Your task to perform on an android device: Go to internet settings Image 0: 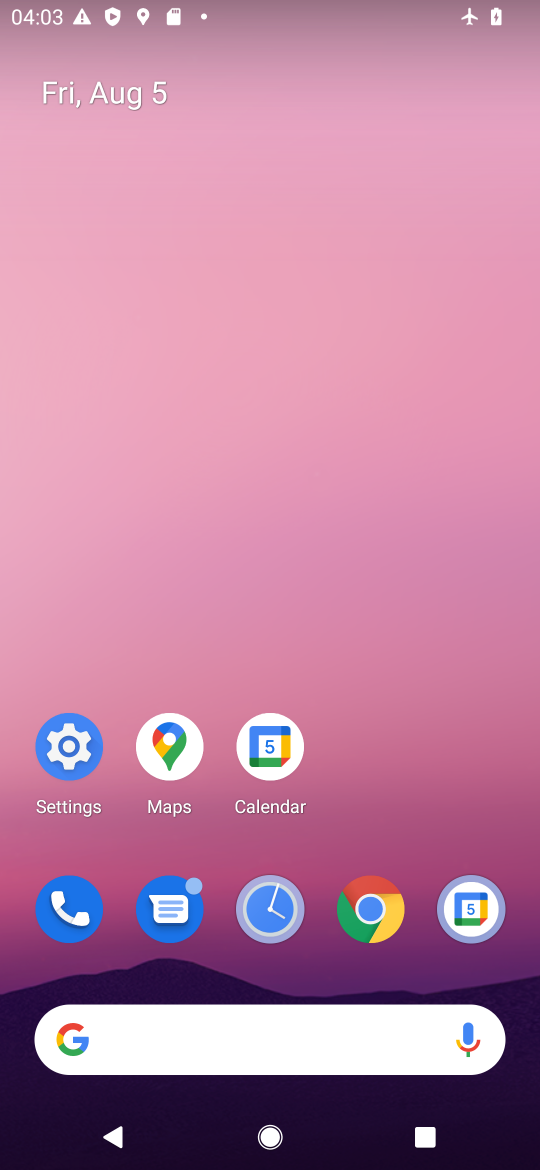
Step 0: click (64, 739)
Your task to perform on an android device: Go to internet settings Image 1: 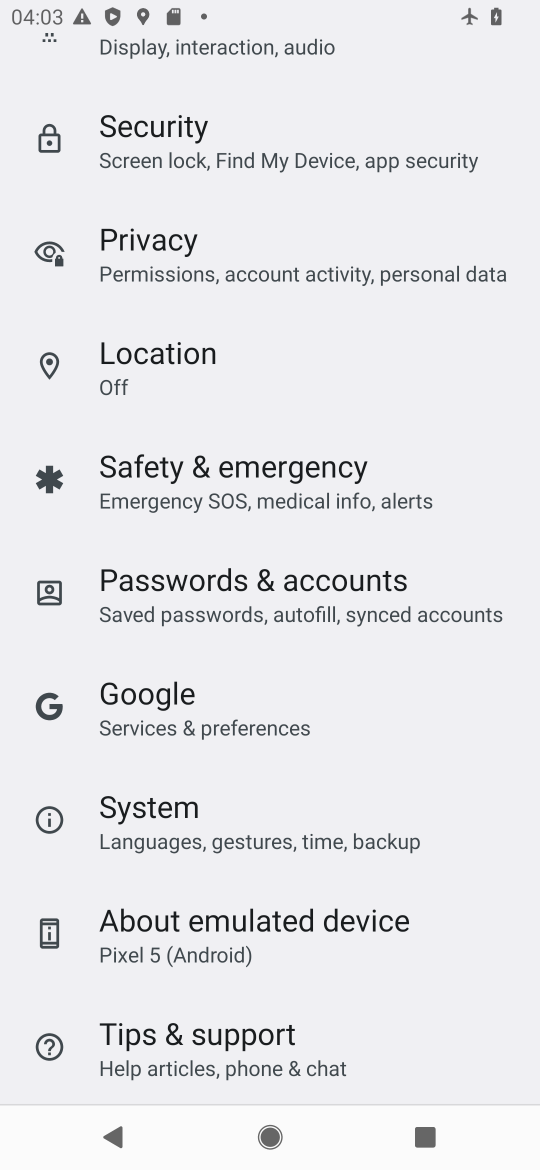
Step 1: drag from (298, 196) to (236, 589)
Your task to perform on an android device: Go to internet settings Image 2: 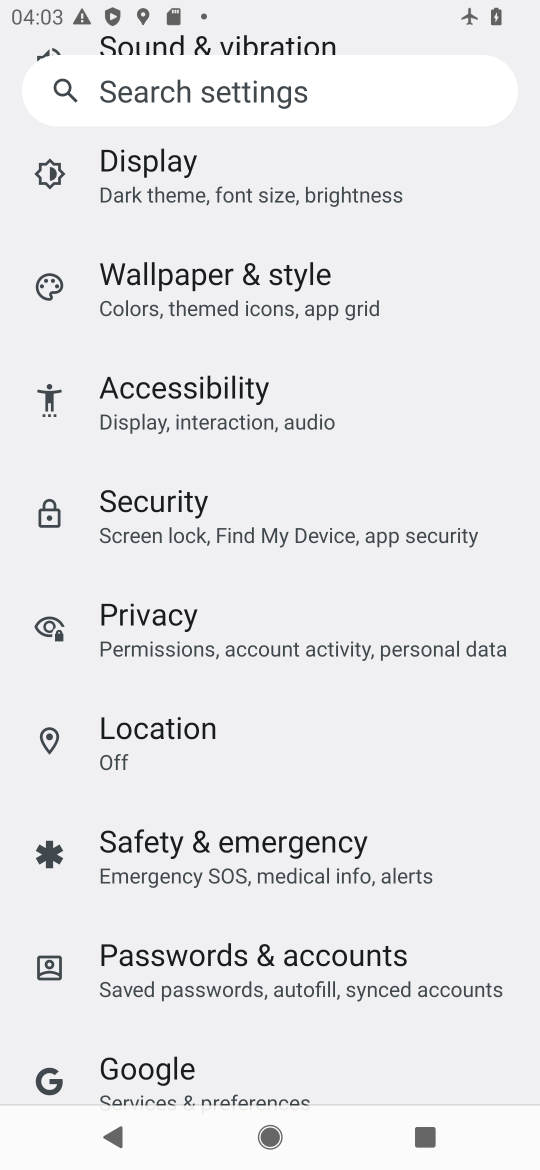
Step 2: drag from (383, 254) to (317, 714)
Your task to perform on an android device: Go to internet settings Image 3: 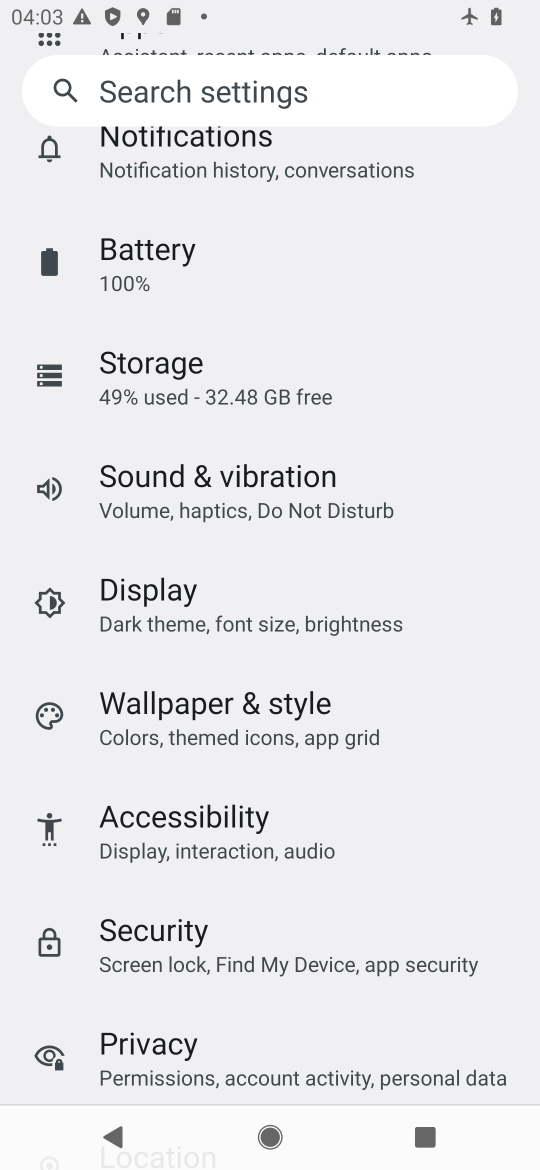
Step 3: drag from (307, 259) to (254, 811)
Your task to perform on an android device: Go to internet settings Image 4: 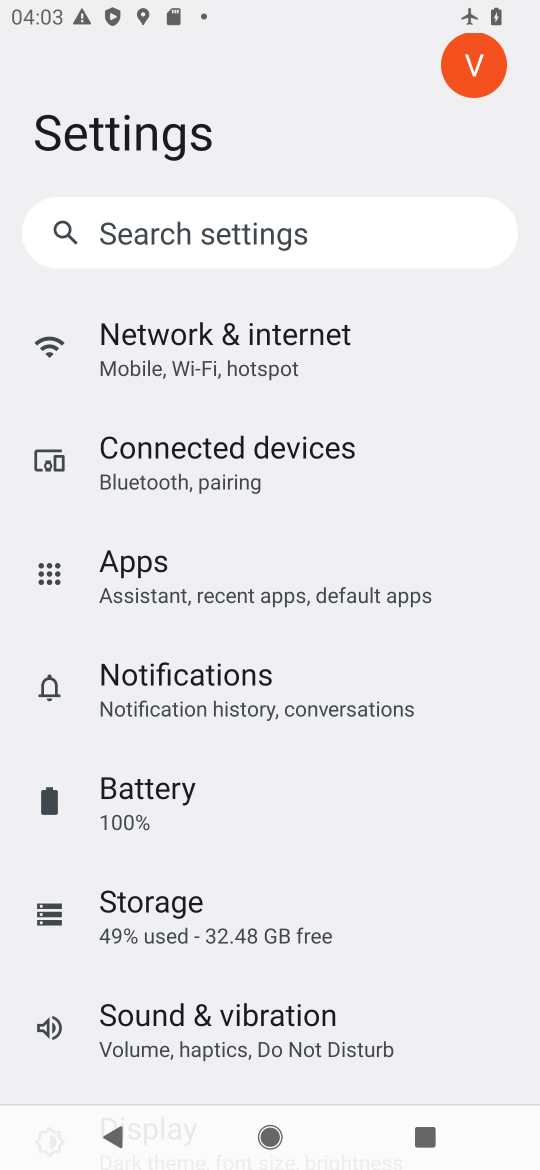
Step 4: click (215, 328)
Your task to perform on an android device: Go to internet settings Image 5: 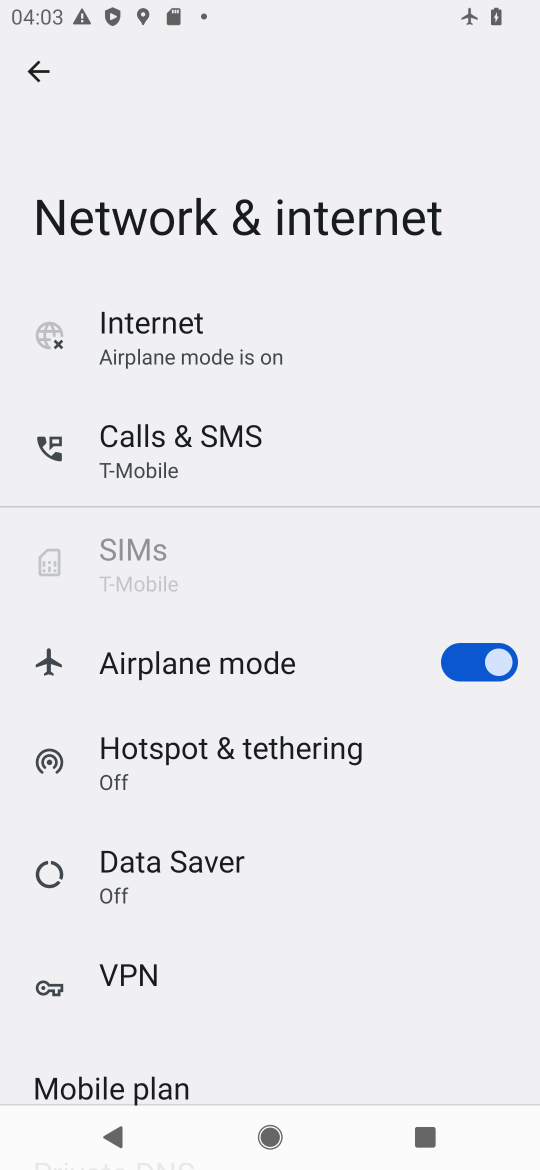
Step 5: click (179, 320)
Your task to perform on an android device: Go to internet settings Image 6: 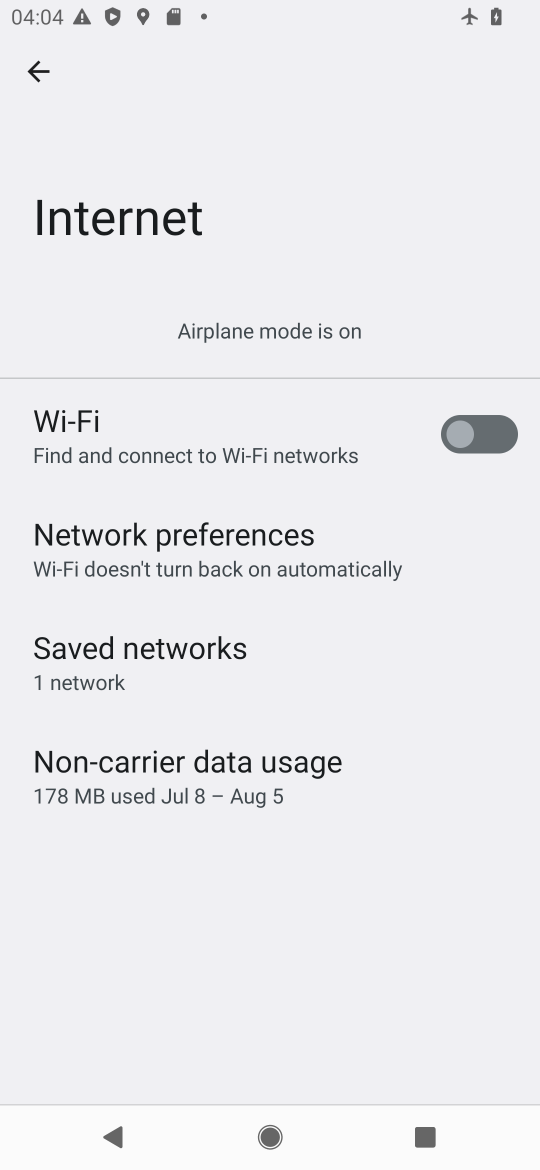
Step 6: task complete